Your task to perform on an android device: What's the weather today? Image 0: 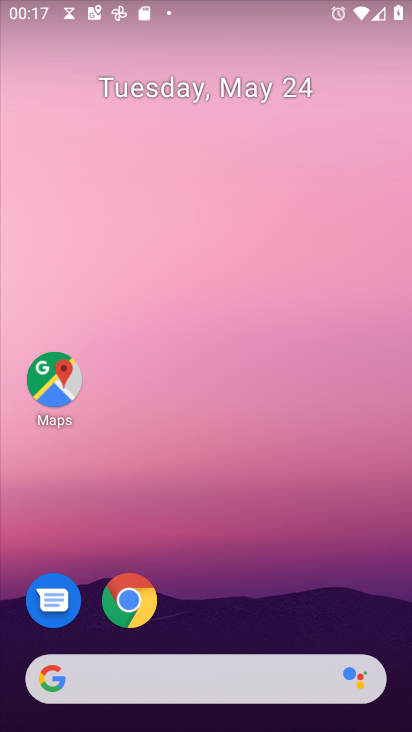
Step 0: drag from (190, 718) to (199, 123)
Your task to perform on an android device: What's the weather today? Image 1: 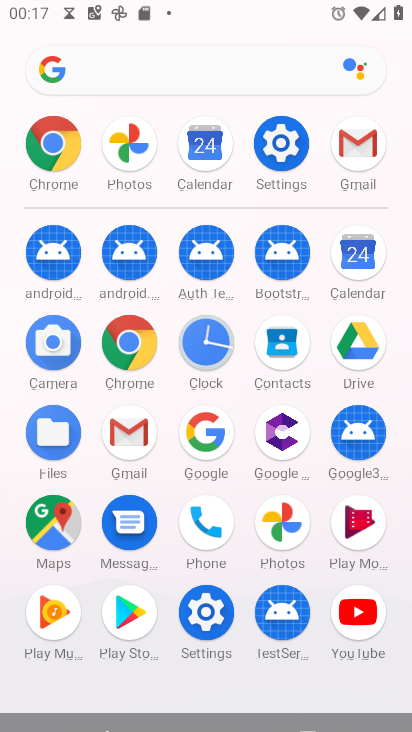
Step 1: click (199, 433)
Your task to perform on an android device: What's the weather today? Image 2: 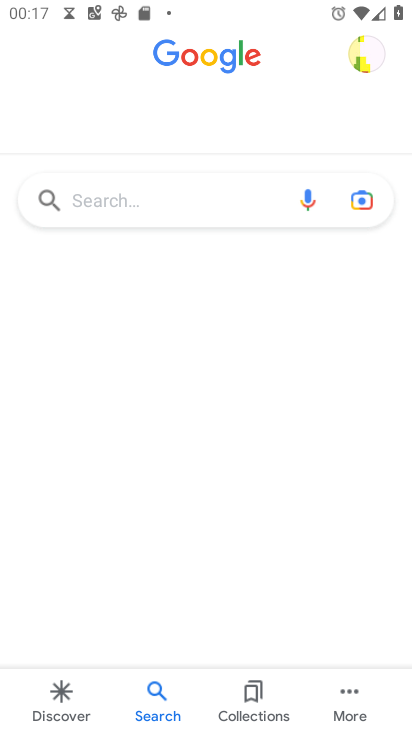
Step 2: click (186, 195)
Your task to perform on an android device: What's the weather today? Image 3: 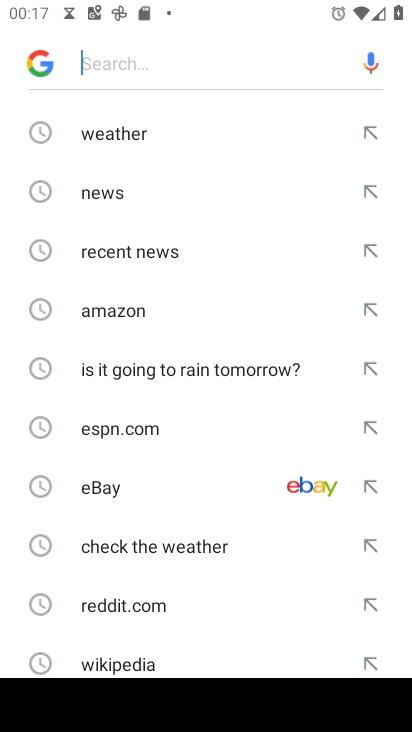
Step 3: click (113, 132)
Your task to perform on an android device: What's the weather today? Image 4: 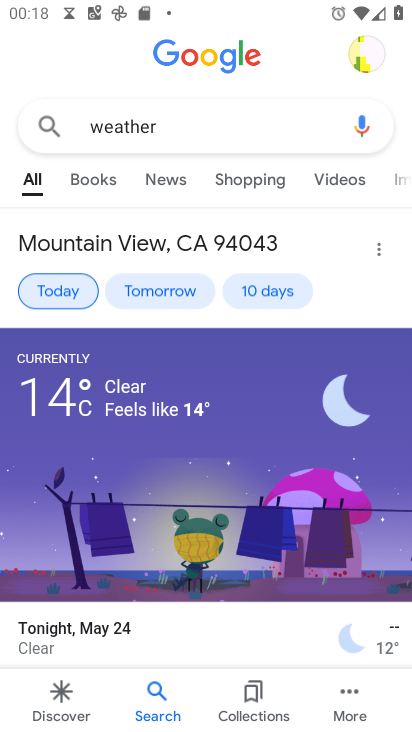
Step 4: click (75, 287)
Your task to perform on an android device: What's the weather today? Image 5: 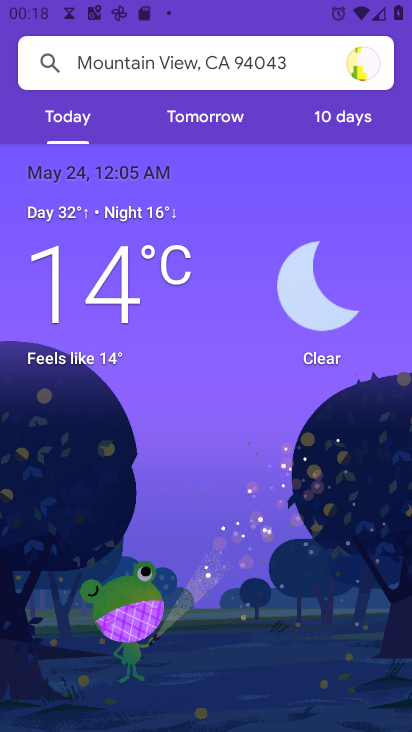
Step 5: task complete